Your task to perform on an android device: open a new tab in the chrome app Image 0: 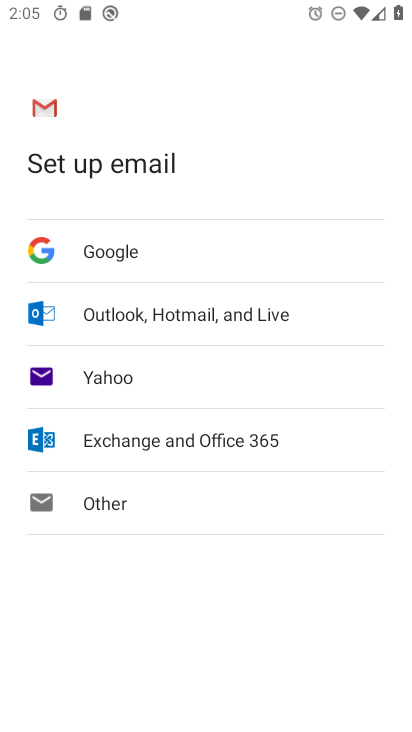
Step 0: press home button
Your task to perform on an android device: open a new tab in the chrome app Image 1: 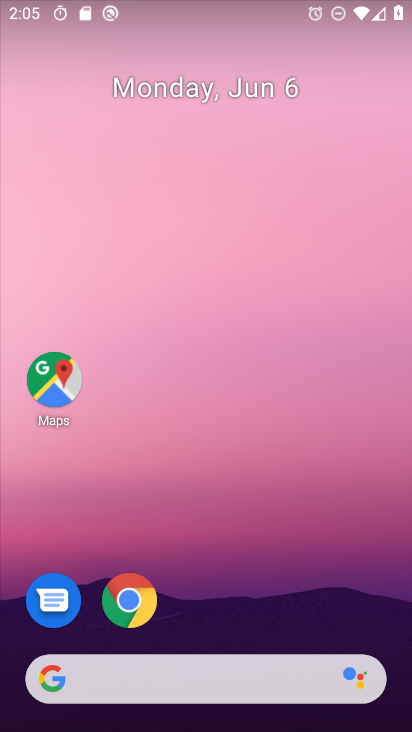
Step 1: click (135, 611)
Your task to perform on an android device: open a new tab in the chrome app Image 2: 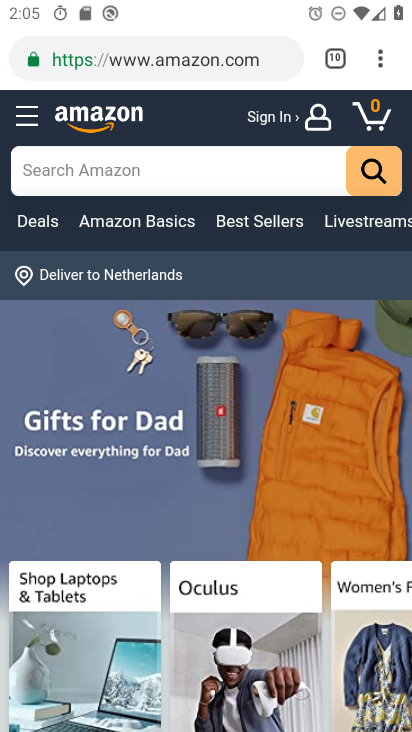
Step 2: click (332, 57)
Your task to perform on an android device: open a new tab in the chrome app Image 3: 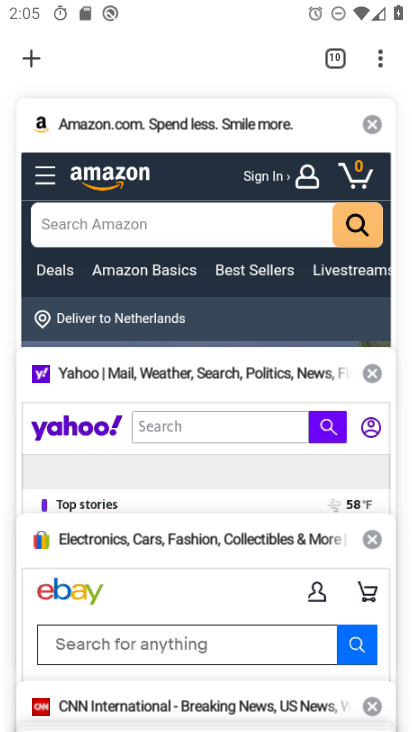
Step 3: click (25, 52)
Your task to perform on an android device: open a new tab in the chrome app Image 4: 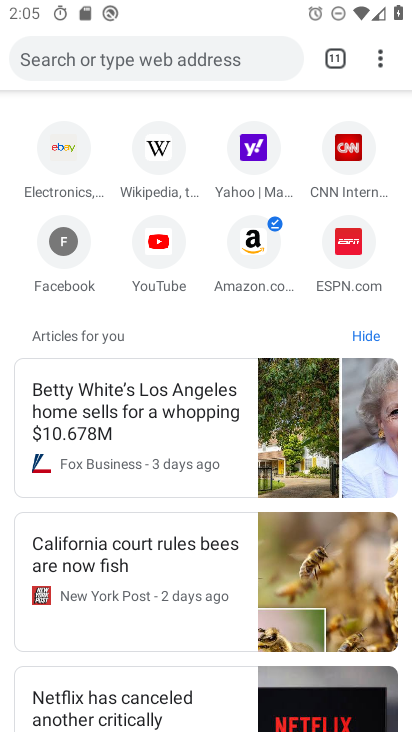
Step 4: task complete